Your task to perform on an android device: open sync settings in chrome Image 0: 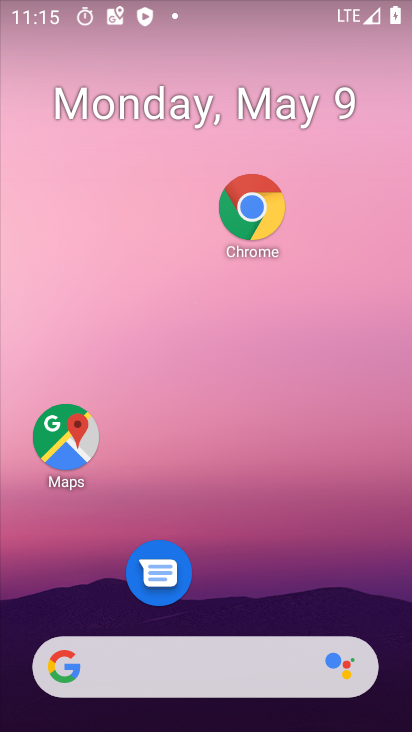
Step 0: drag from (230, 578) to (230, 56)
Your task to perform on an android device: open sync settings in chrome Image 1: 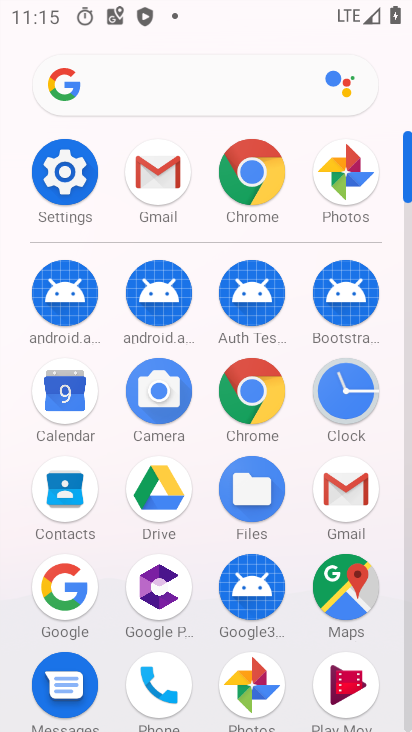
Step 1: click (248, 171)
Your task to perform on an android device: open sync settings in chrome Image 2: 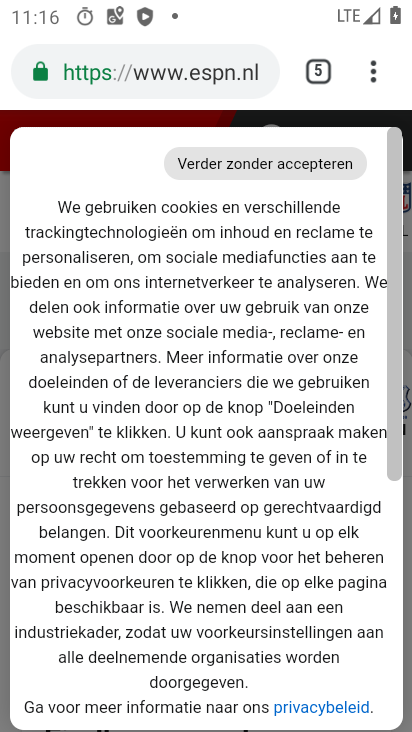
Step 2: click (371, 65)
Your task to perform on an android device: open sync settings in chrome Image 3: 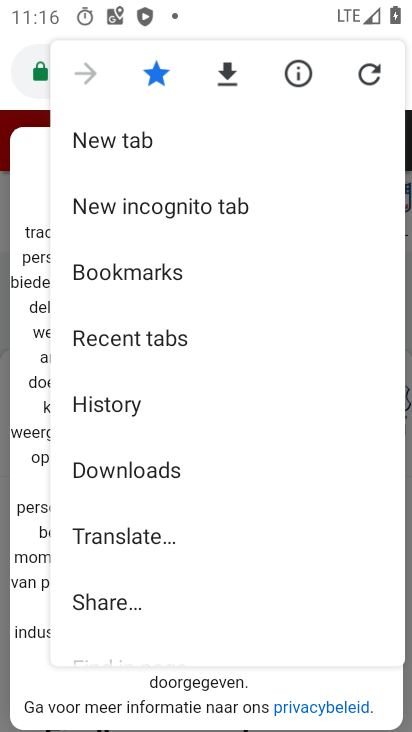
Step 3: drag from (320, 570) to (215, 305)
Your task to perform on an android device: open sync settings in chrome Image 4: 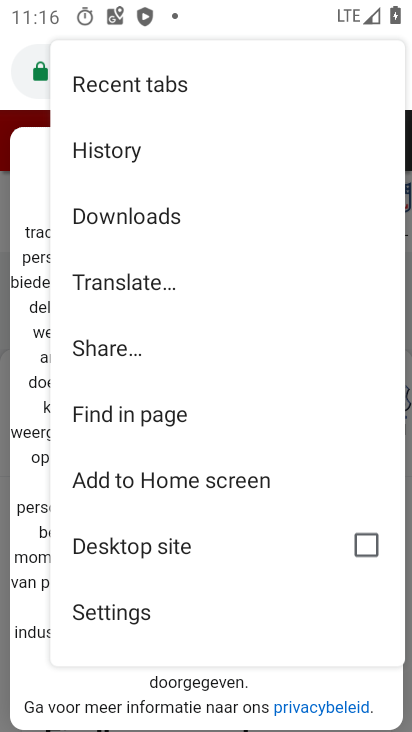
Step 4: drag from (261, 519) to (143, 211)
Your task to perform on an android device: open sync settings in chrome Image 5: 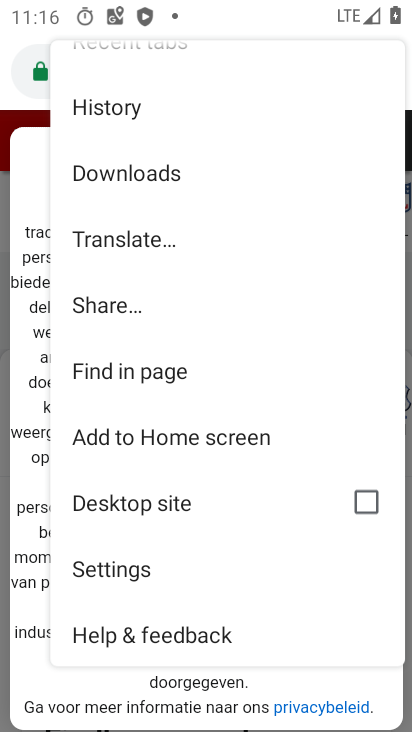
Step 5: click (124, 565)
Your task to perform on an android device: open sync settings in chrome Image 6: 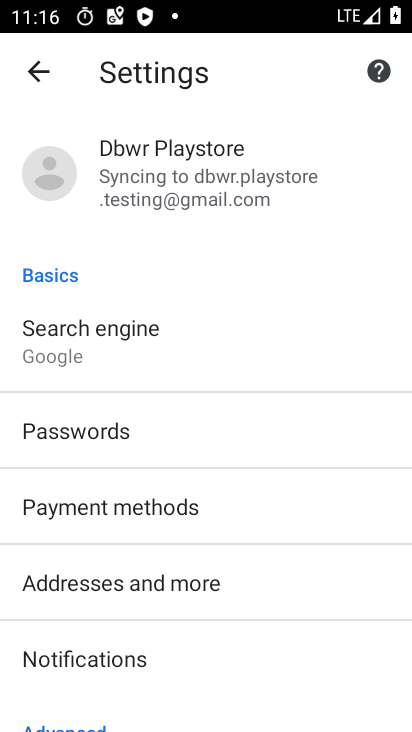
Step 6: click (163, 184)
Your task to perform on an android device: open sync settings in chrome Image 7: 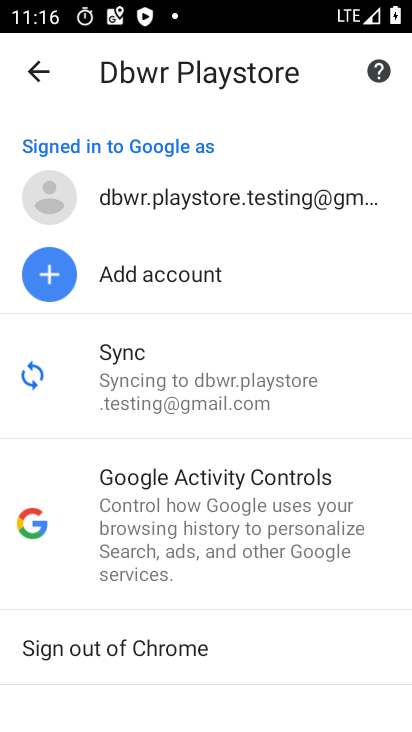
Step 7: click (232, 395)
Your task to perform on an android device: open sync settings in chrome Image 8: 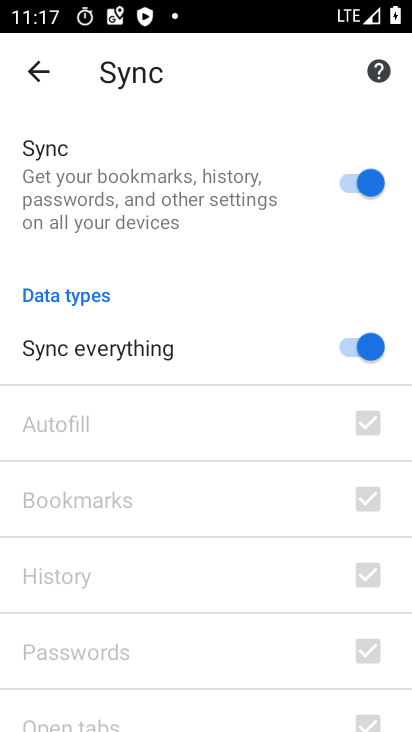
Step 8: task complete